Your task to perform on an android device: Show me popular videos on Youtube Image 0: 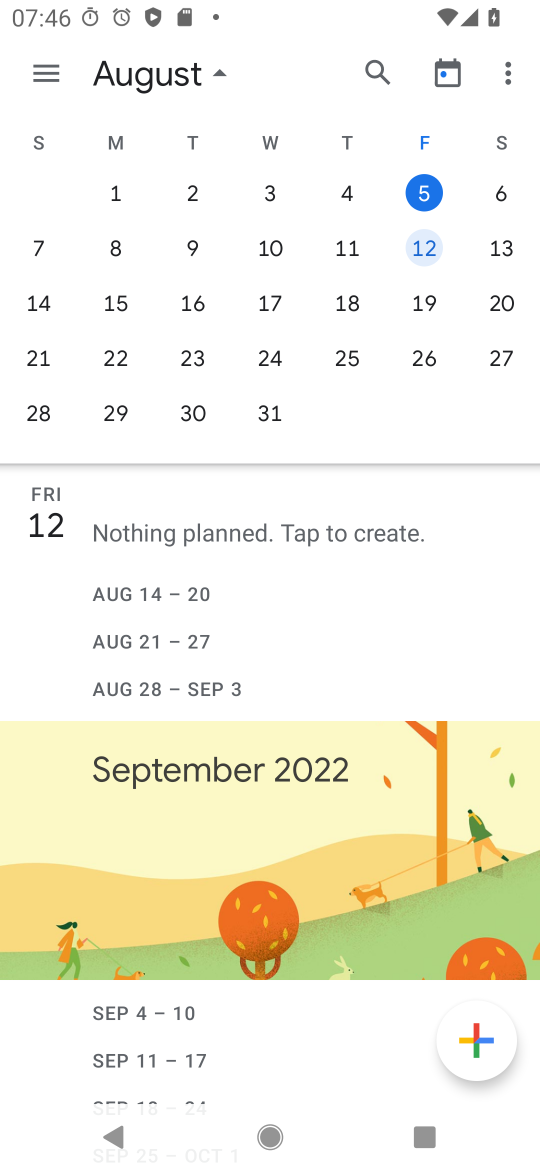
Step 0: press home button
Your task to perform on an android device: Show me popular videos on Youtube Image 1: 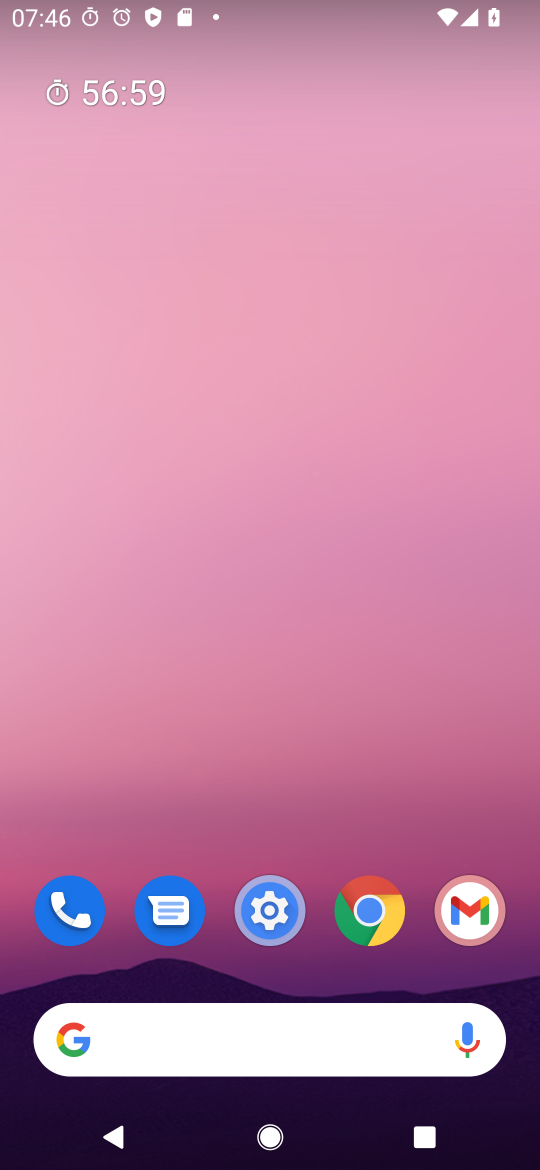
Step 1: drag from (277, 1028) to (354, 154)
Your task to perform on an android device: Show me popular videos on Youtube Image 2: 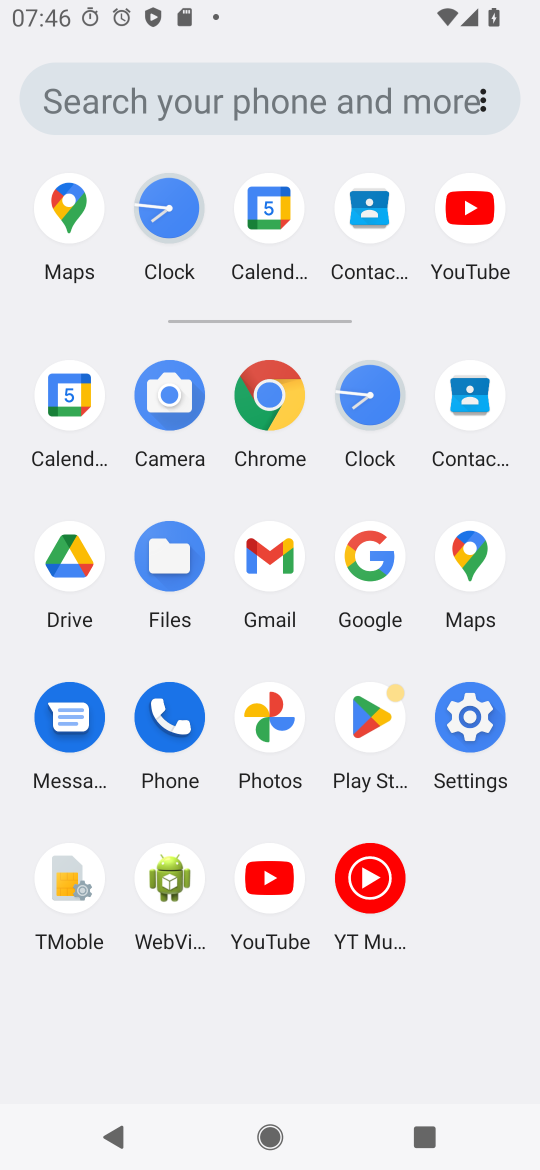
Step 2: click (255, 886)
Your task to perform on an android device: Show me popular videos on Youtube Image 3: 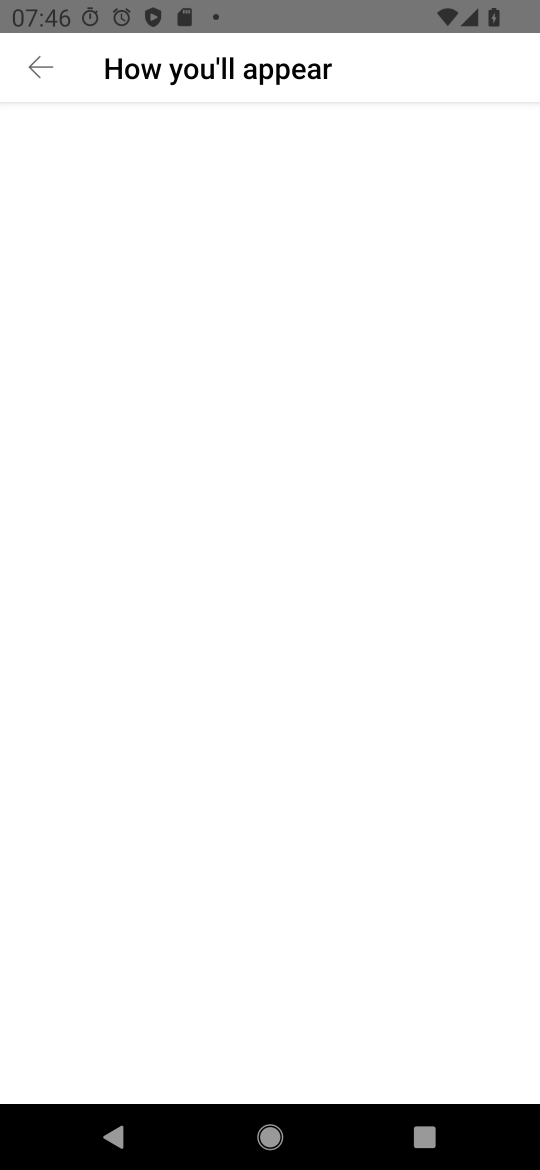
Step 3: task complete